Your task to perform on an android device: turn pop-ups off in chrome Image 0: 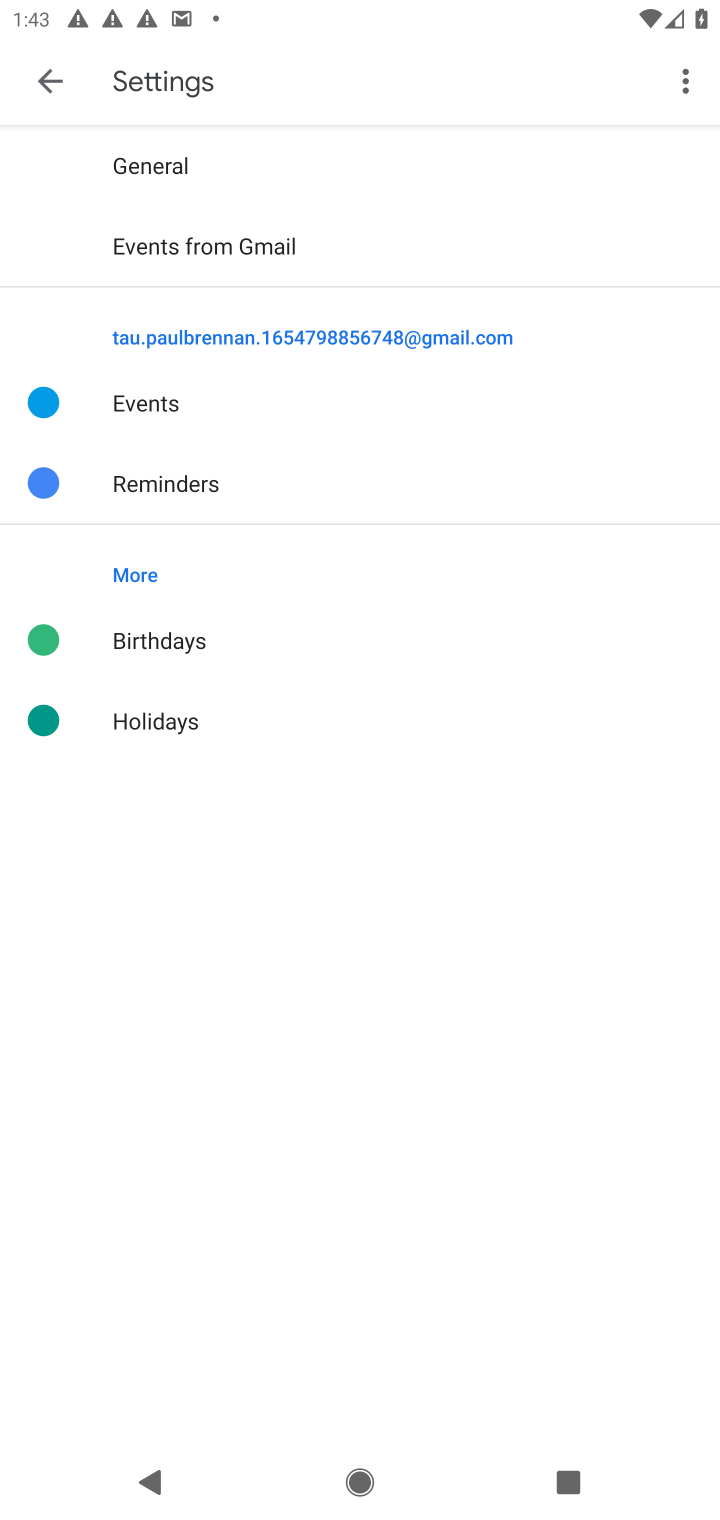
Step 0: press home button
Your task to perform on an android device: turn pop-ups off in chrome Image 1: 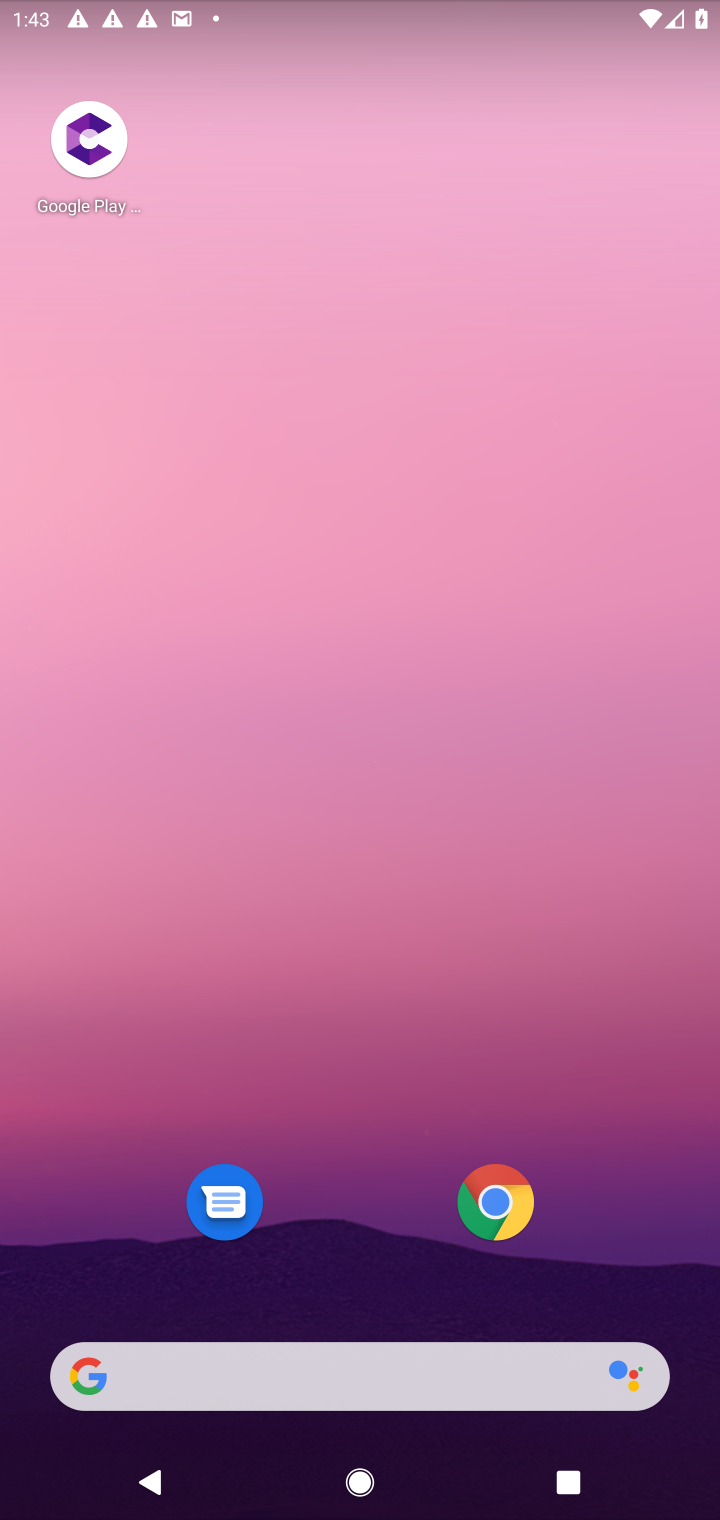
Step 1: click (490, 1200)
Your task to perform on an android device: turn pop-ups off in chrome Image 2: 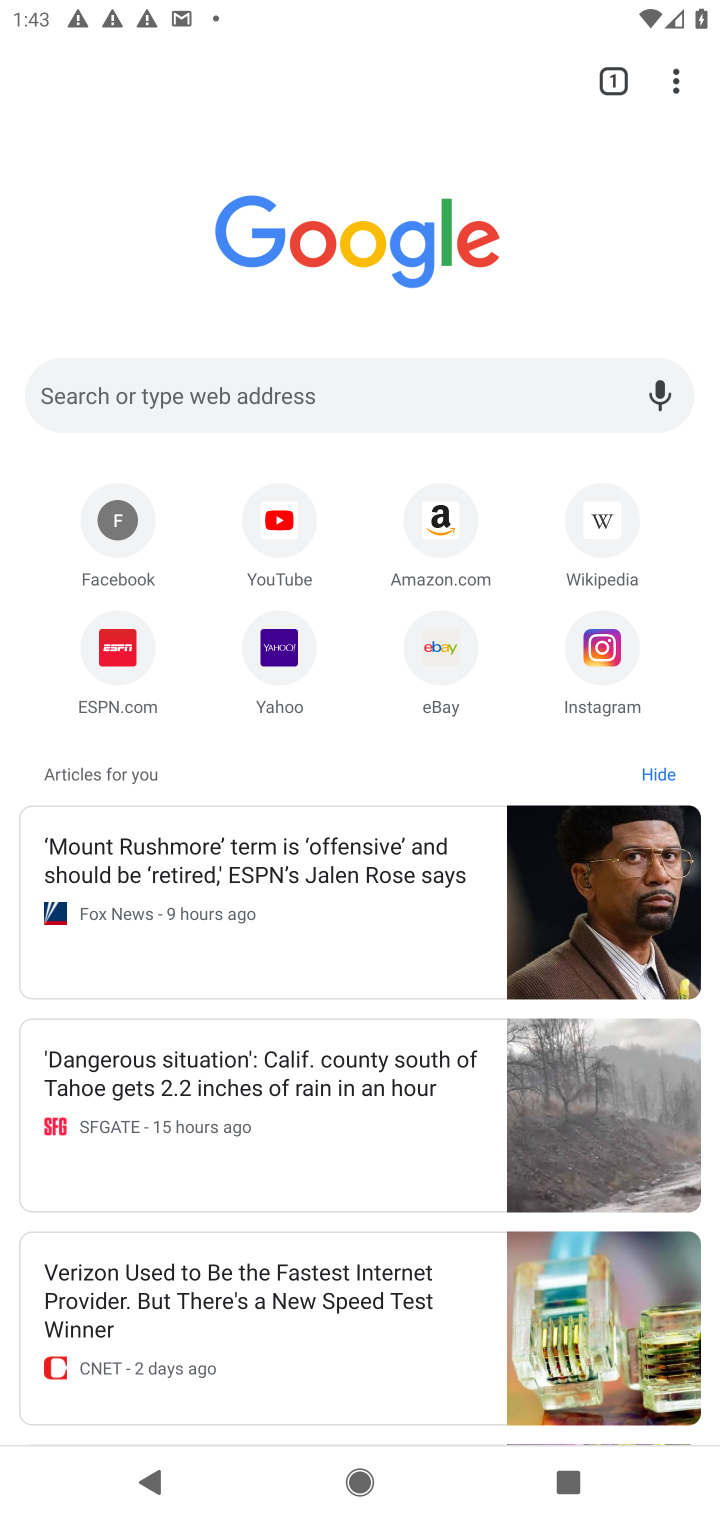
Step 2: click (681, 86)
Your task to perform on an android device: turn pop-ups off in chrome Image 3: 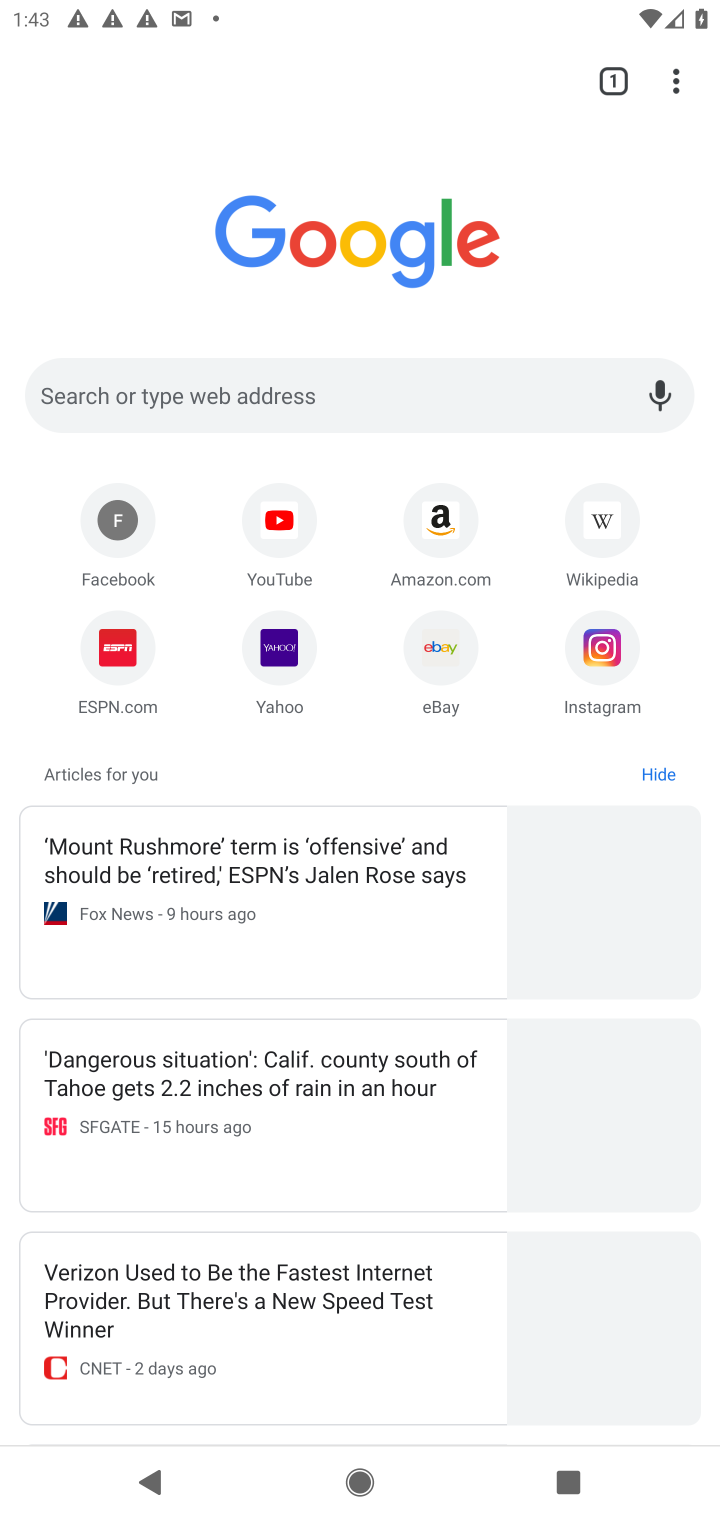
Step 3: click (681, 86)
Your task to perform on an android device: turn pop-ups off in chrome Image 4: 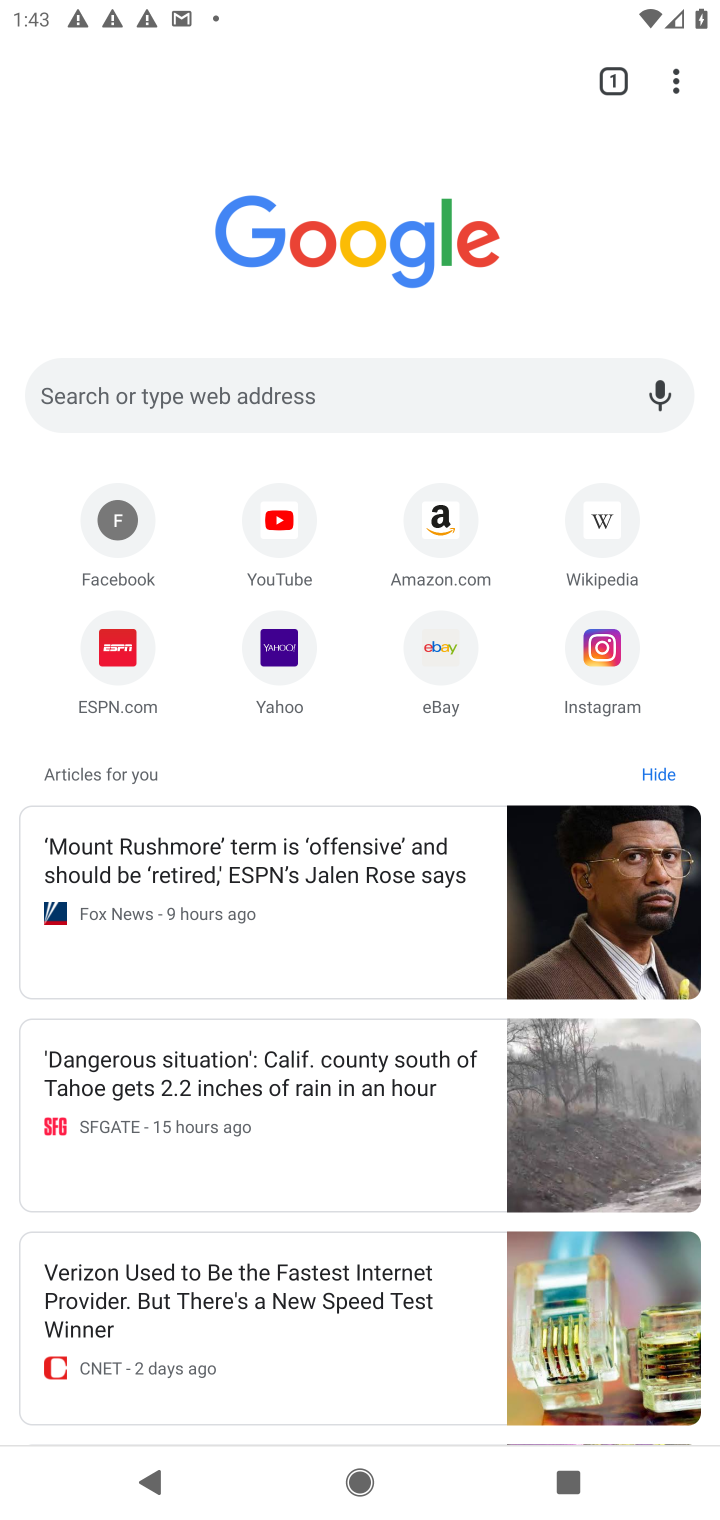
Step 4: click (674, 79)
Your task to perform on an android device: turn pop-ups off in chrome Image 5: 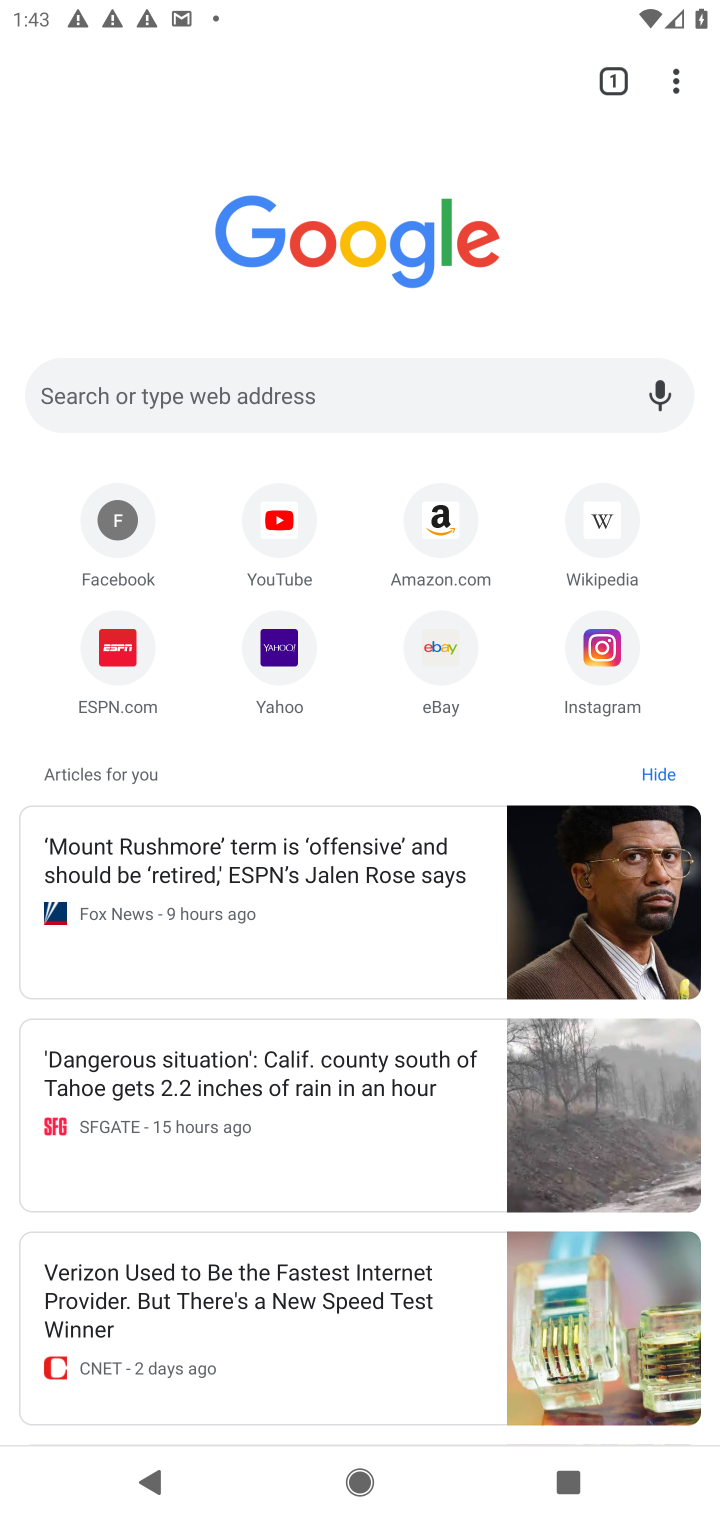
Step 5: click (682, 83)
Your task to perform on an android device: turn pop-ups off in chrome Image 6: 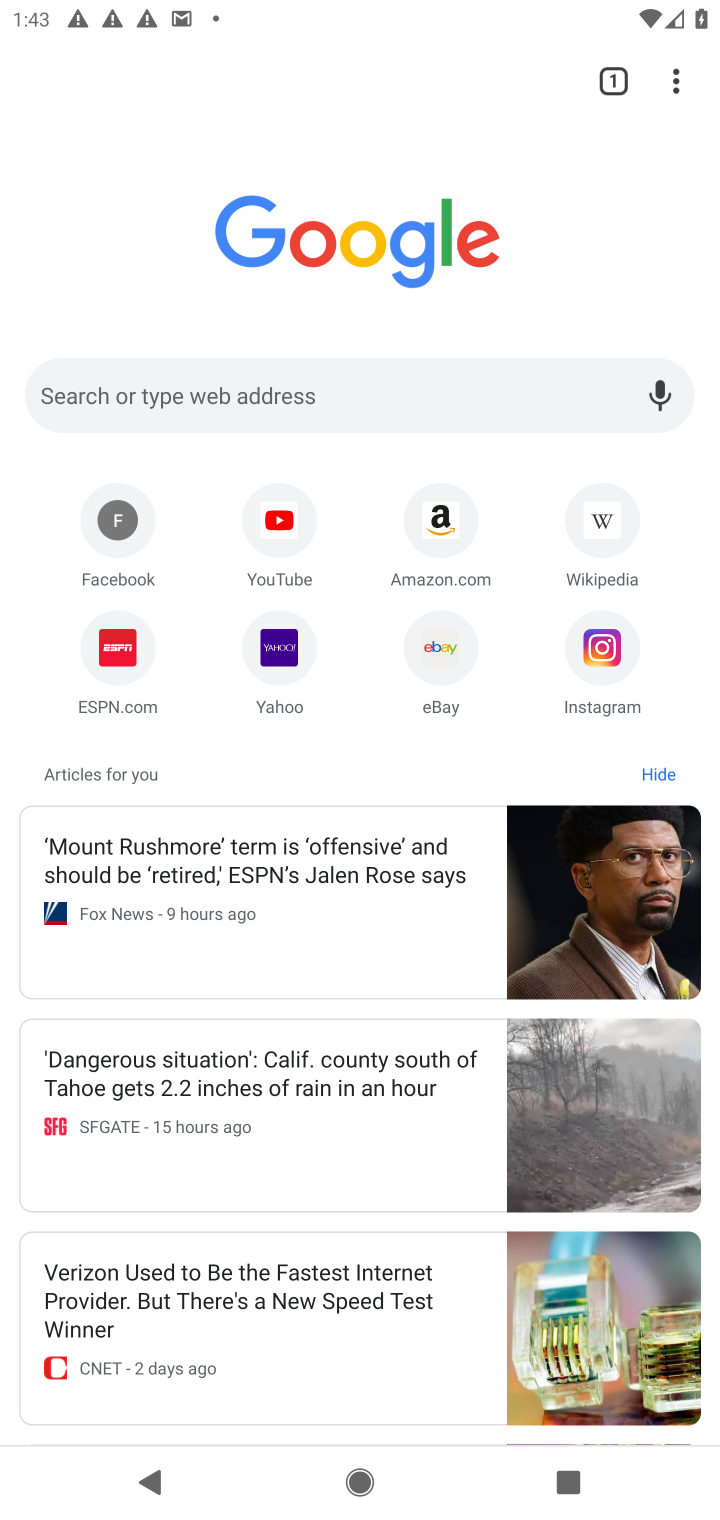
Step 6: click (682, 83)
Your task to perform on an android device: turn pop-ups off in chrome Image 7: 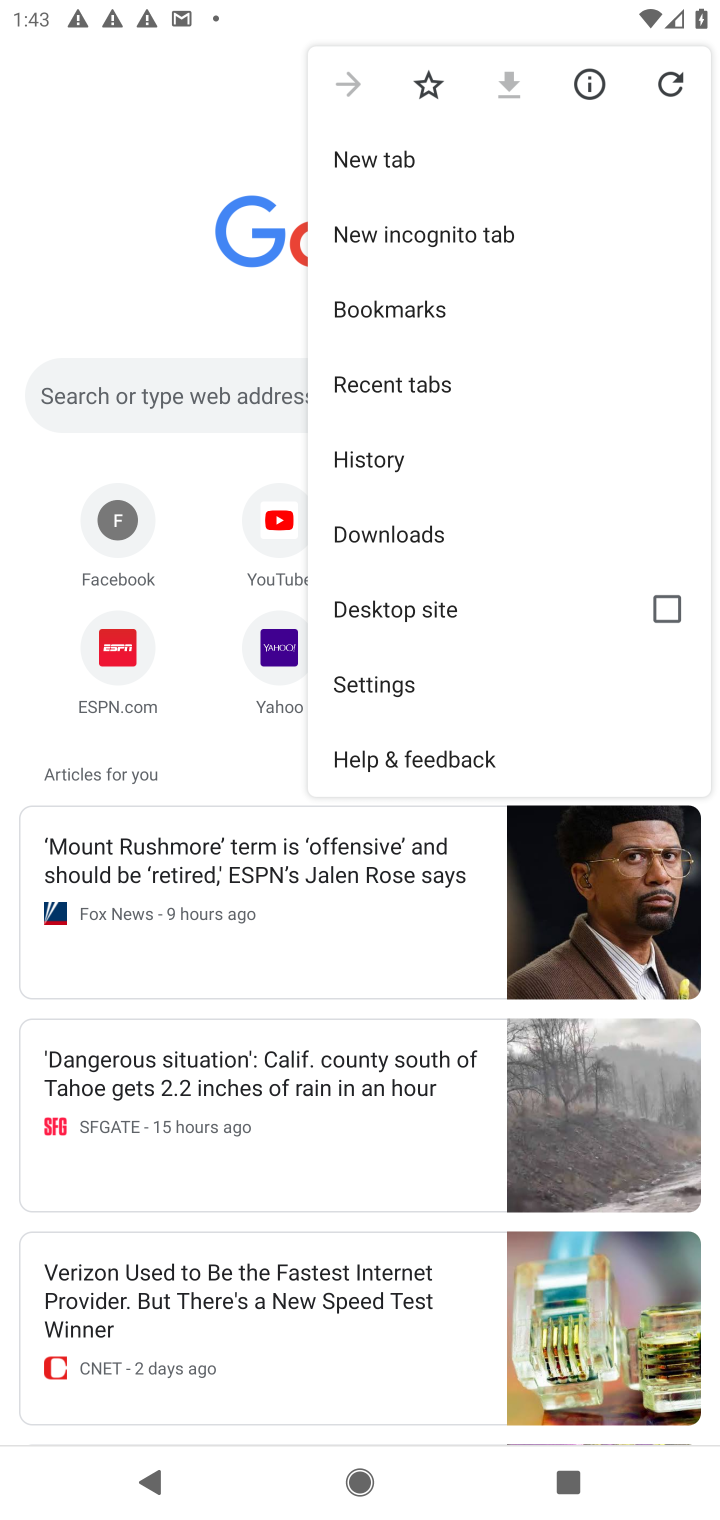
Step 7: click (416, 669)
Your task to perform on an android device: turn pop-ups off in chrome Image 8: 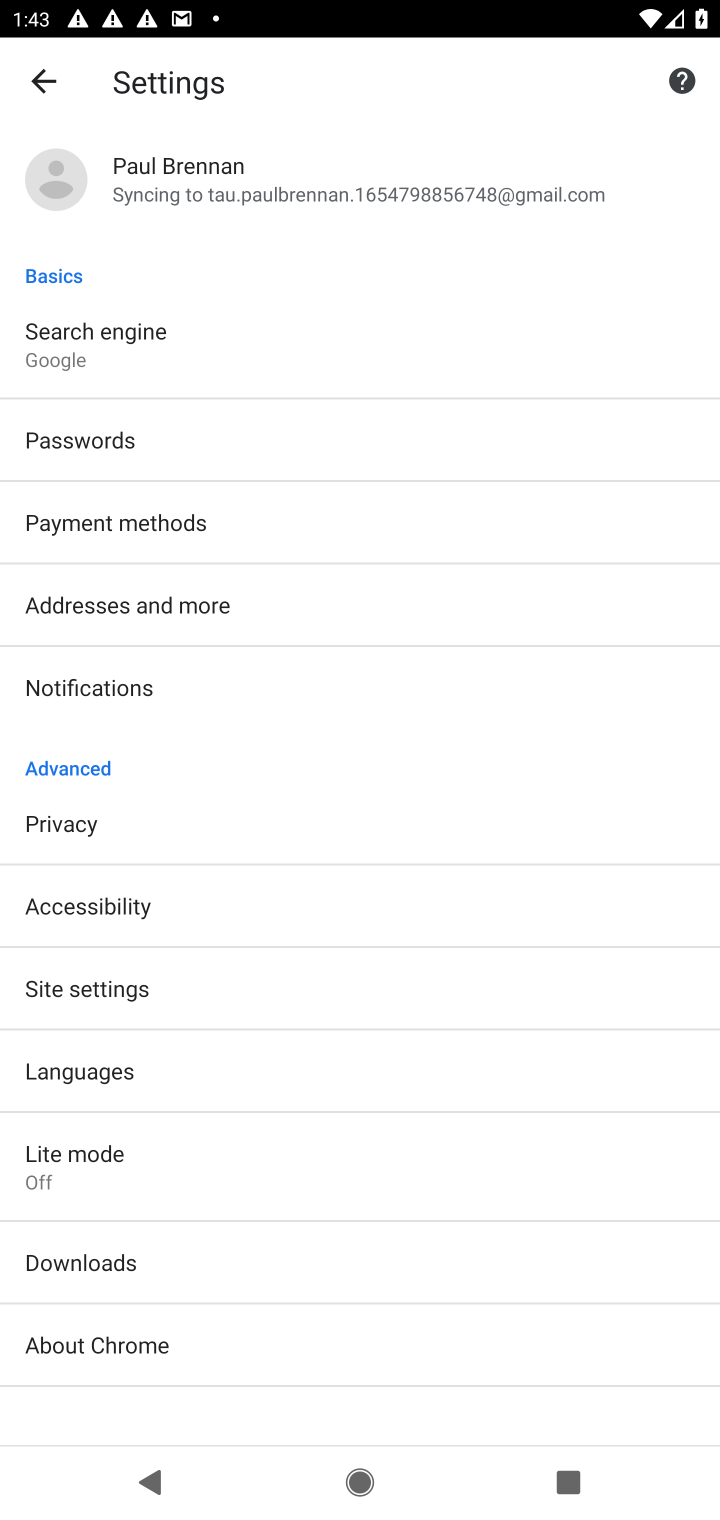
Step 8: drag from (79, 1340) to (148, 680)
Your task to perform on an android device: turn pop-ups off in chrome Image 9: 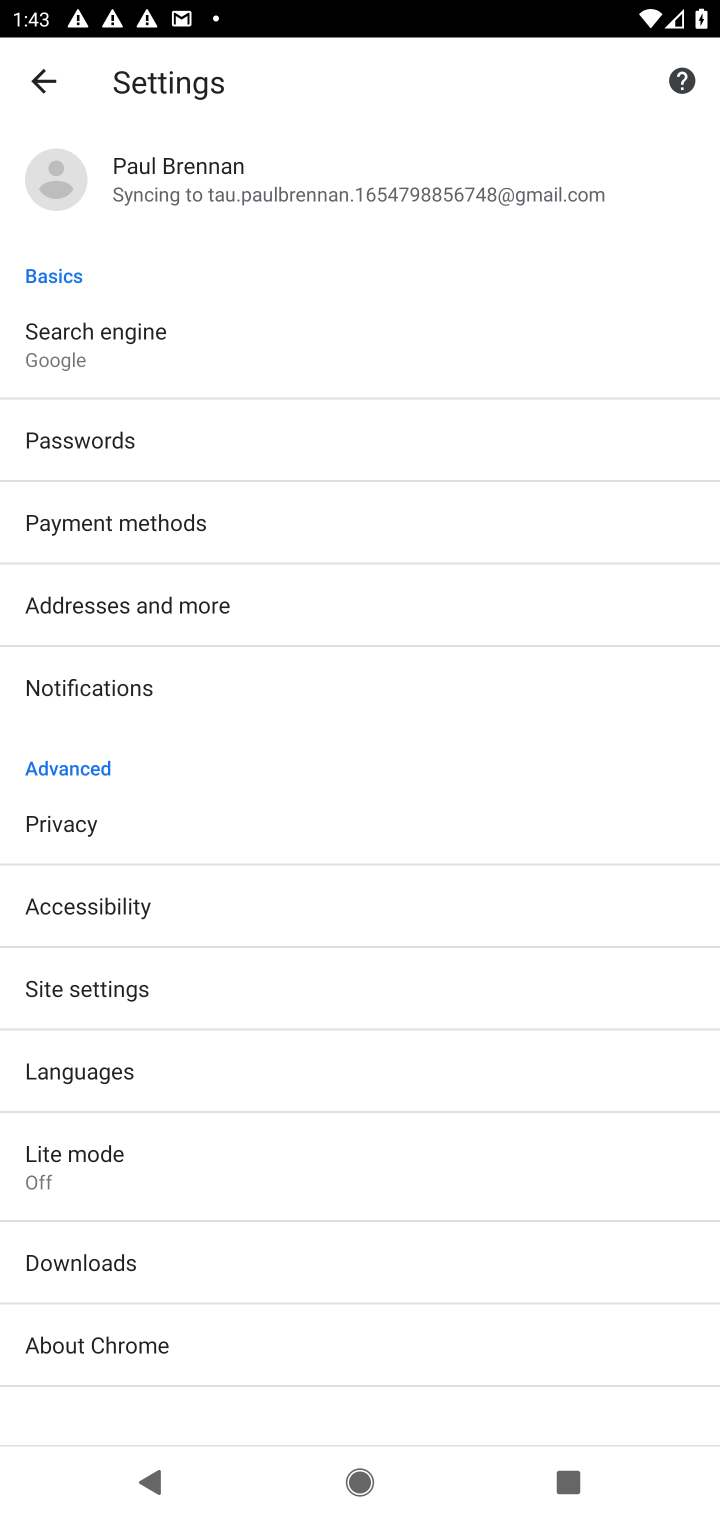
Step 9: click (79, 990)
Your task to perform on an android device: turn pop-ups off in chrome Image 10: 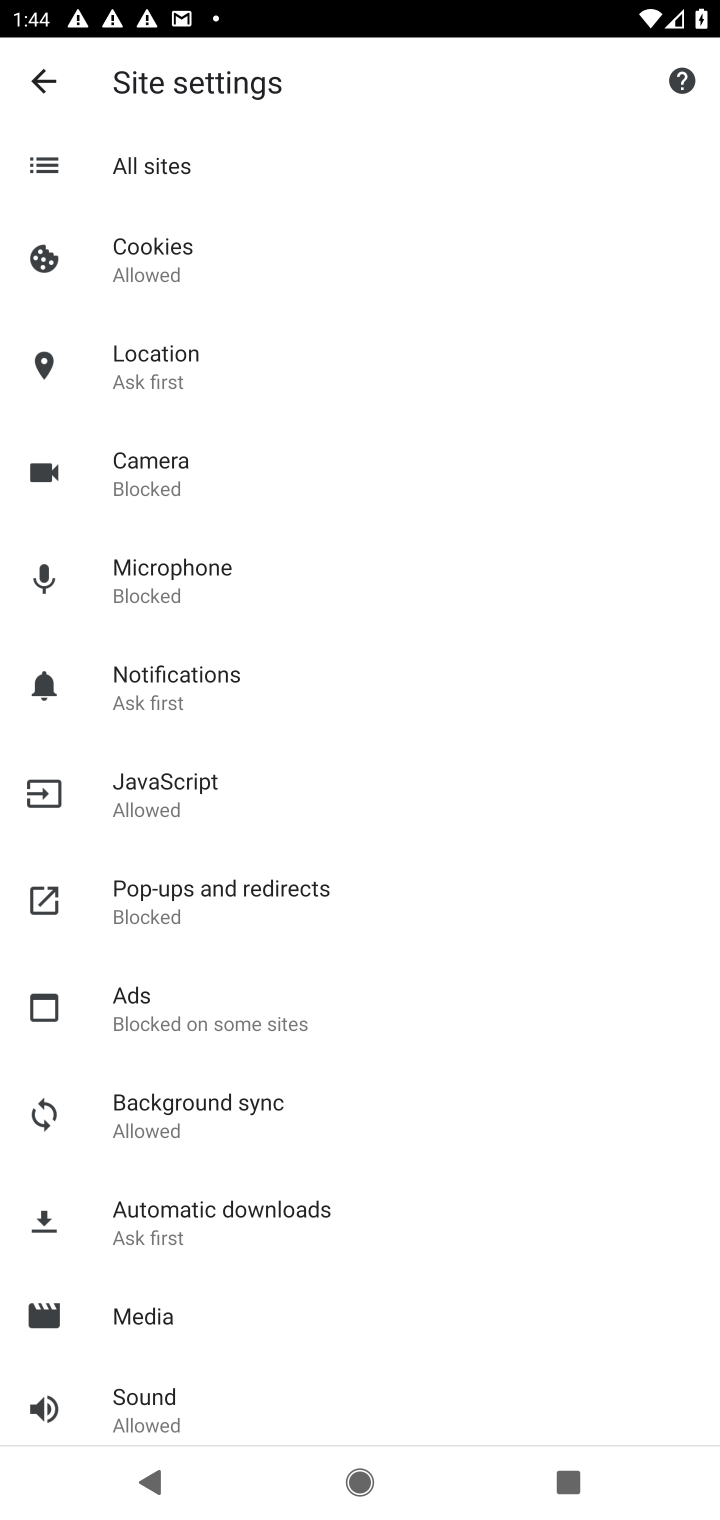
Step 10: click (161, 917)
Your task to perform on an android device: turn pop-ups off in chrome Image 11: 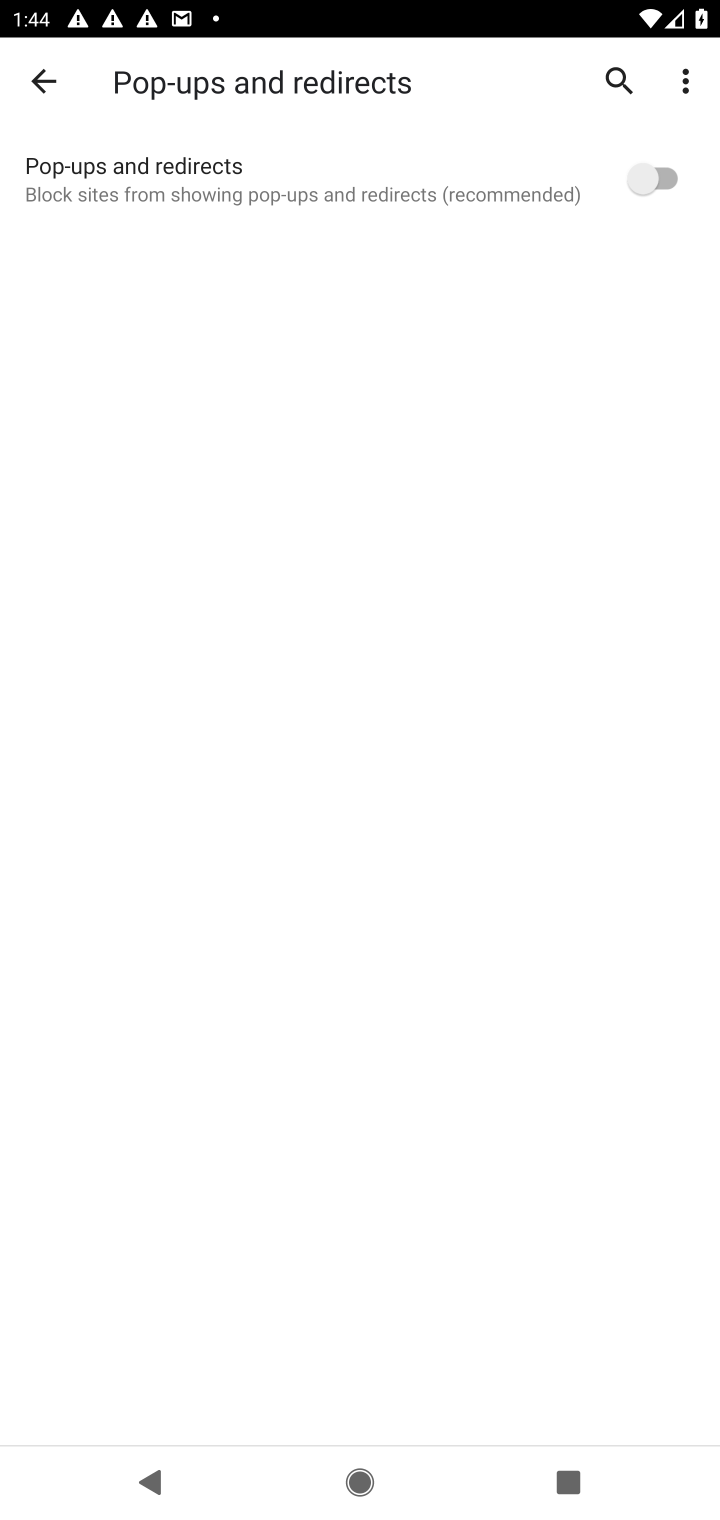
Step 11: task complete